Your task to perform on an android device: Show the shopping cart on ebay. Search for "dell xps" on ebay, select the first entry, and add it to the cart. Image 0: 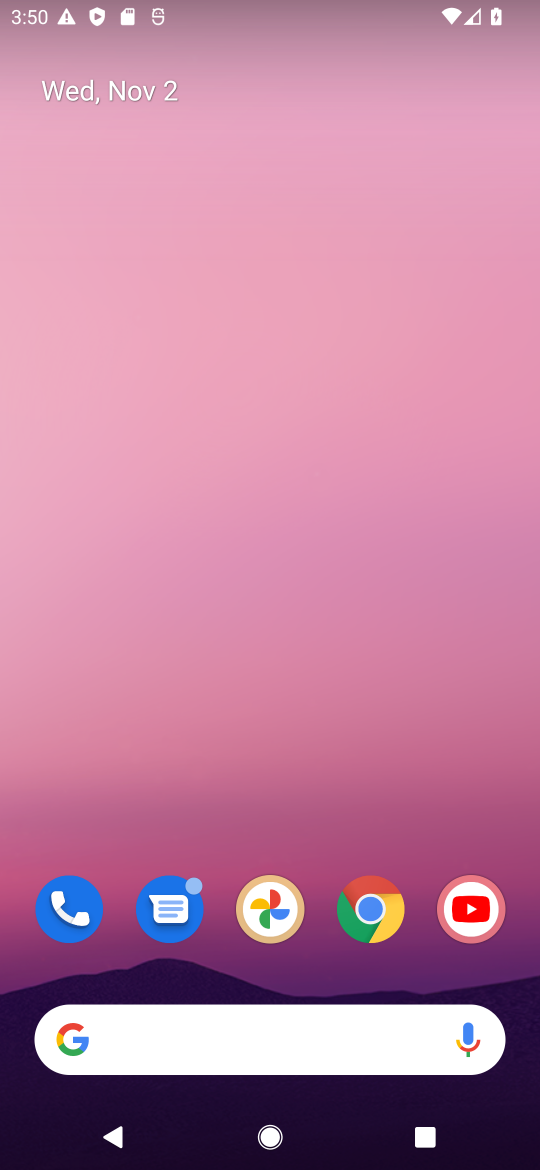
Step 0: press home button
Your task to perform on an android device: Show the shopping cart on ebay. Search for "dell xps" on ebay, select the first entry, and add it to the cart. Image 1: 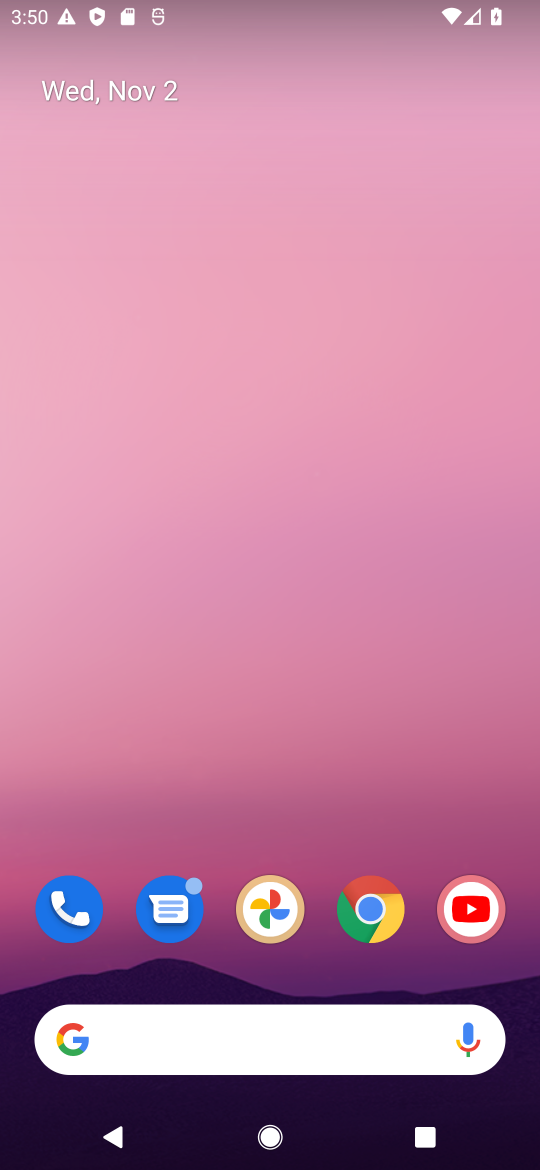
Step 1: click (373, 888)
Your task to perform on an android device: Show the shopping cart on ebay. Search for "dell xps" on ebay, select the first entry, and add it to the cart. Image 2: 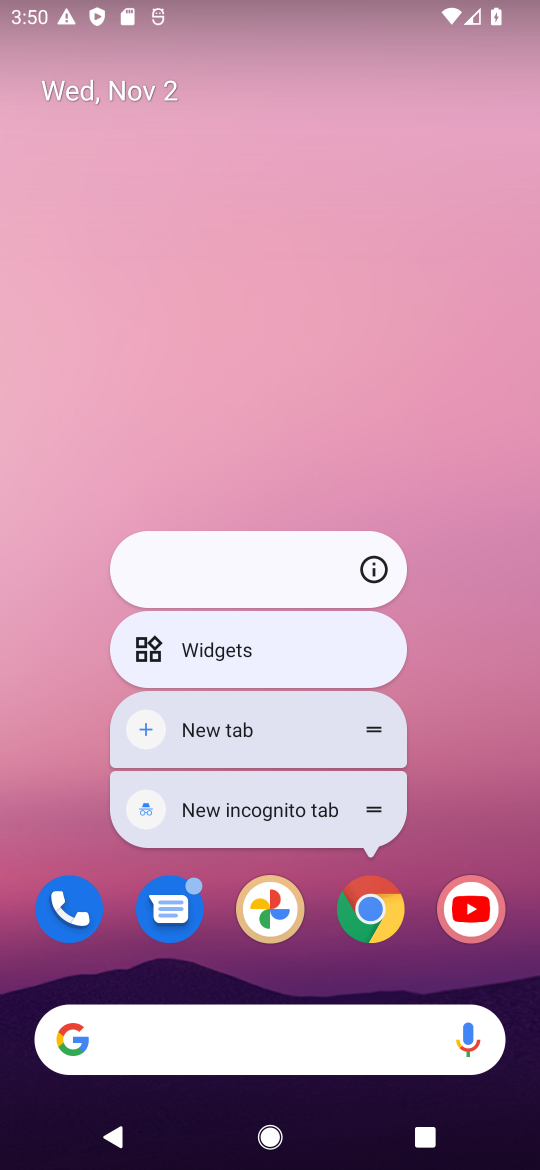
Step 2: click (366, 912)
Your task to perform on an android device: Show the shopping cart on ebay. Search for "dell xps" on ebay, select the first entry, and add it to the cart. Image 3: 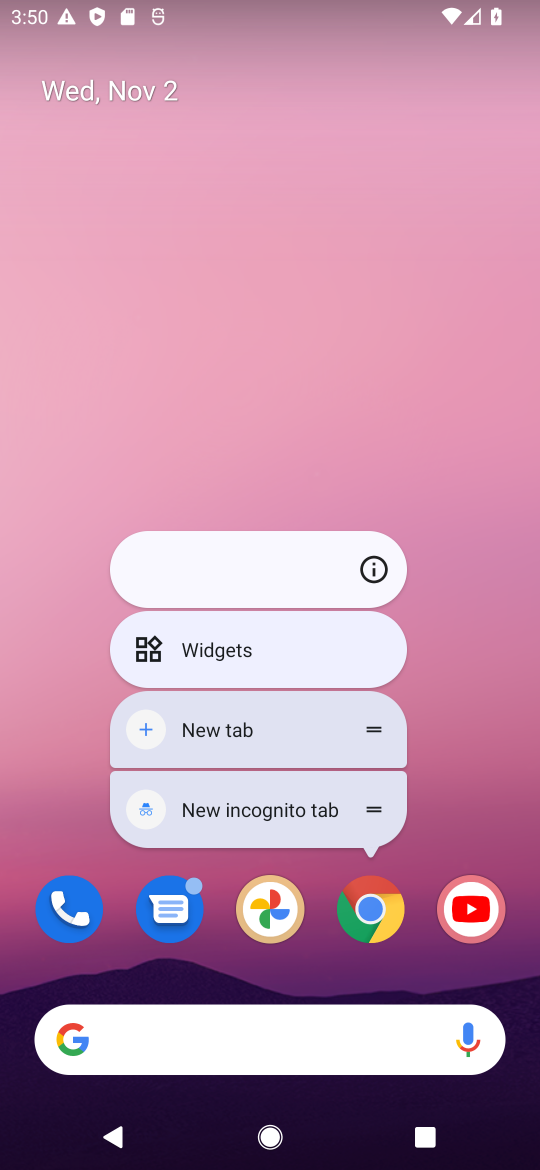
Step 3: click (379, 908)
Your task to perform on an android device: Show the shopping cart on ebay. Search for "dell xps" on ebay, select the first entry, and add it to the cart. Image 4: 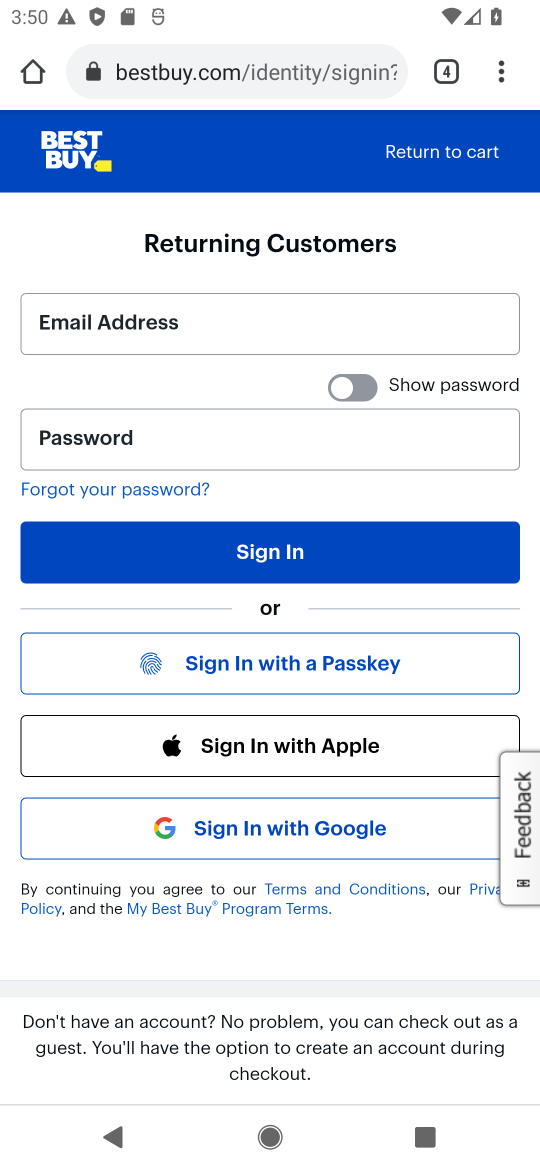
Step 4: click (198, 62)
Your task to perform on an android device: Show the shopping cart on ebay. Search for "dell xps" on ebay, select the first entry, and add it to the cart. Image 5: 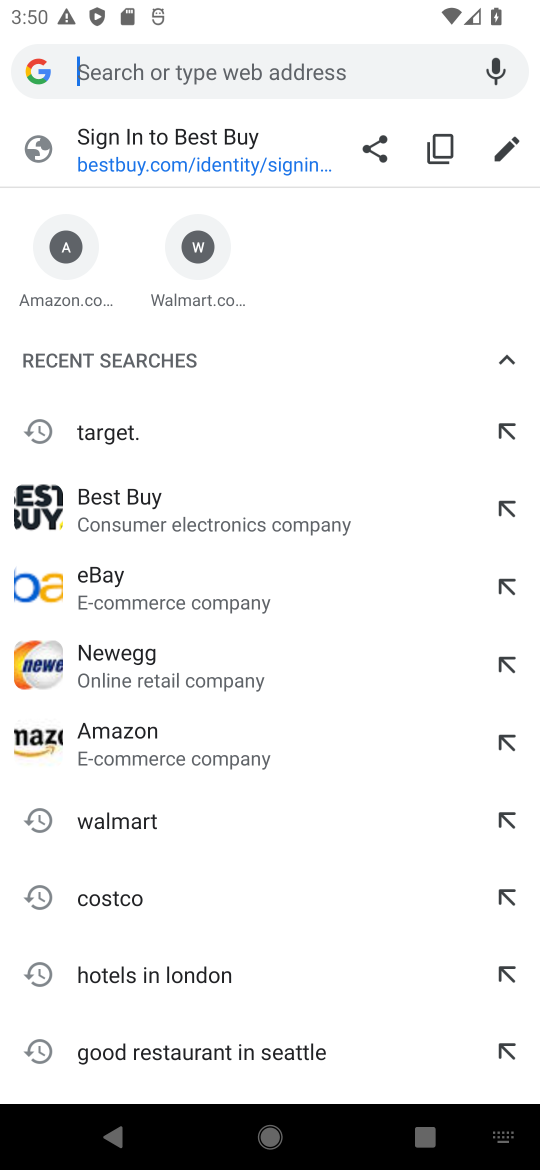
Step 5: click (103, 578)
Your task to perform on an android device: Show the shopping cart on ebay. Search for "dell xps" on ebay, select the first entry, and add it to the cart. Image 6: 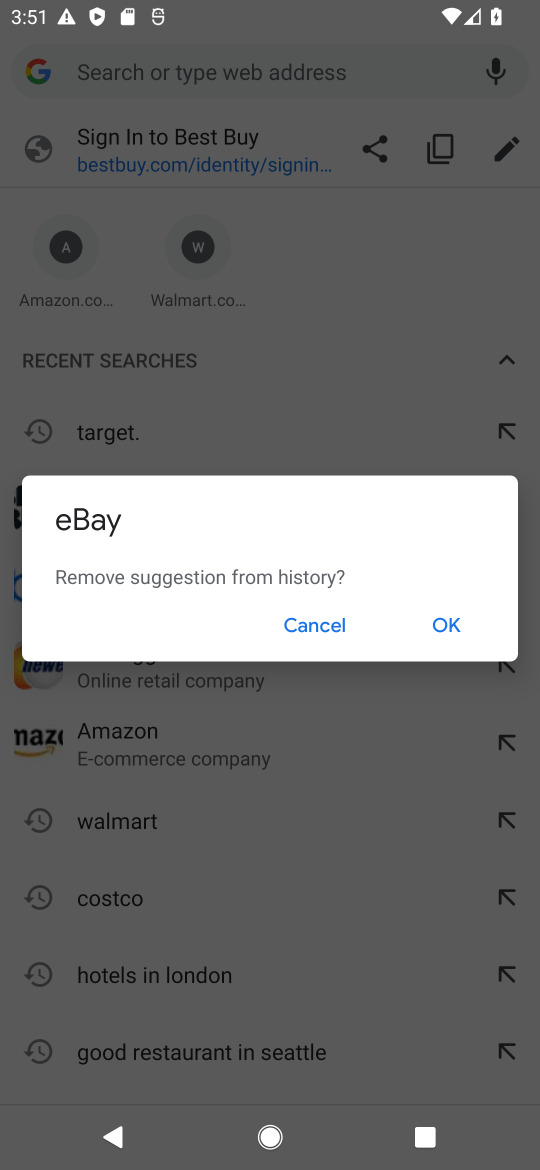
Step 6: click (336, 633)
Your task to perform on an android device: Show the shopping cart on ebay. Search for "dell xps" on ebay, select the first entry, and add it to the cart. Image 7: 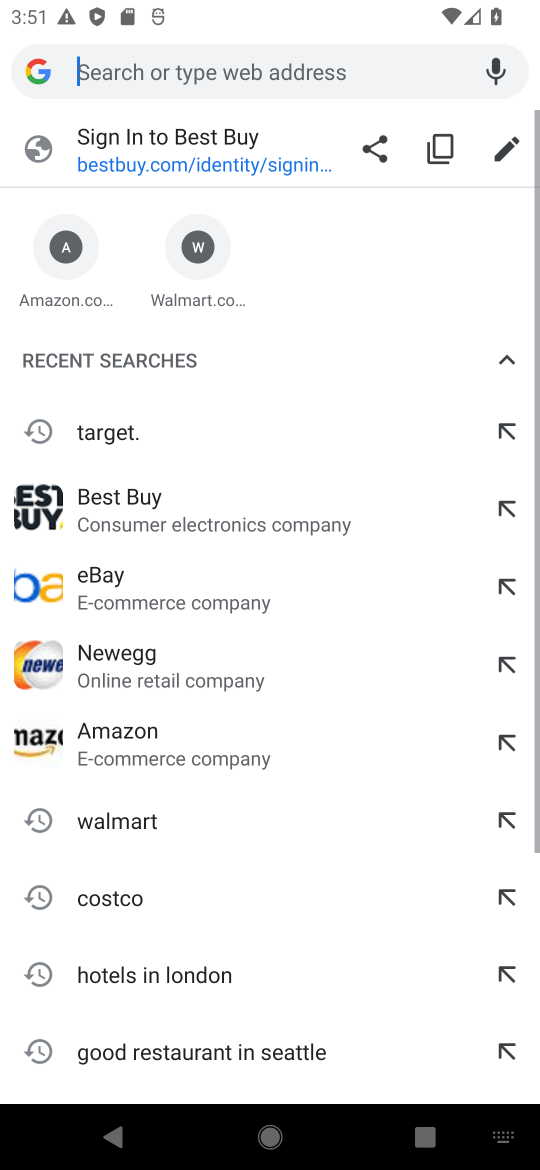
Step 7: click (80, 583)
Your task to perform on an android device: Show the shopping cart on ebay. Search for "dell xps" on ebay, select the first entry, and add it to the cart. Image 8: 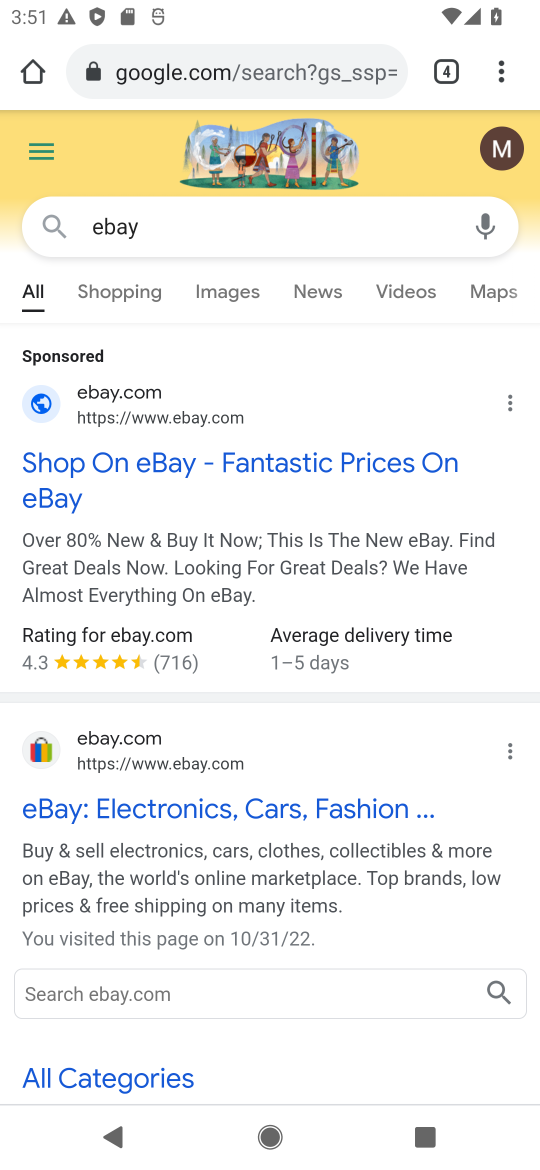
Step 8: click (226, 457)
Your task to perform on an android device: Show the shopping cart on ebay. Search for "dell xps" on ebay, select the first entry, and add it to the cart. Image 9: 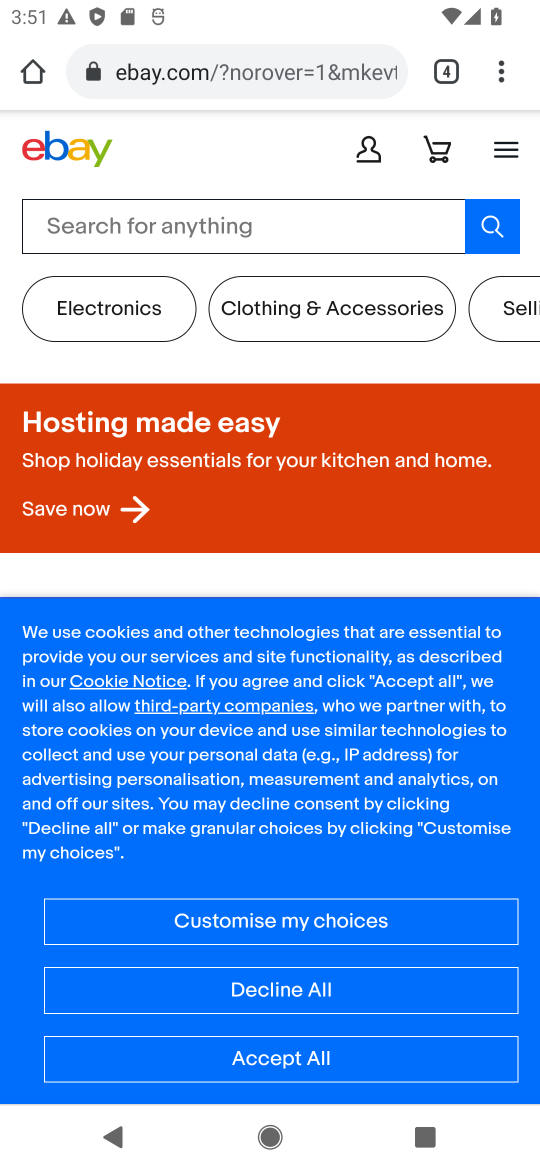
Step 9: click (269, 1063)
Your task to perform on an android device: Show the shopping cart on ebay. Search for "dell xps" on ebay, select the first entry, and add it to the cart. Image 10: 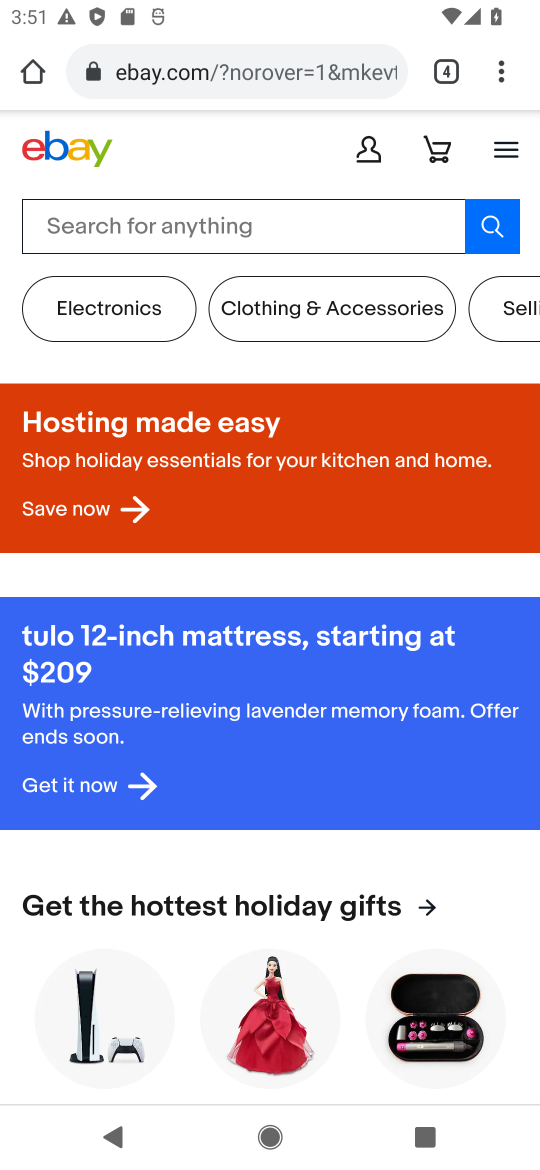
Step 10: click (141, 211)
Your task to perform on an android device: Show the shopping cart on ebay. Search for "dell xps" on ebay, select the first entry, and add it to the cart. Image 11: 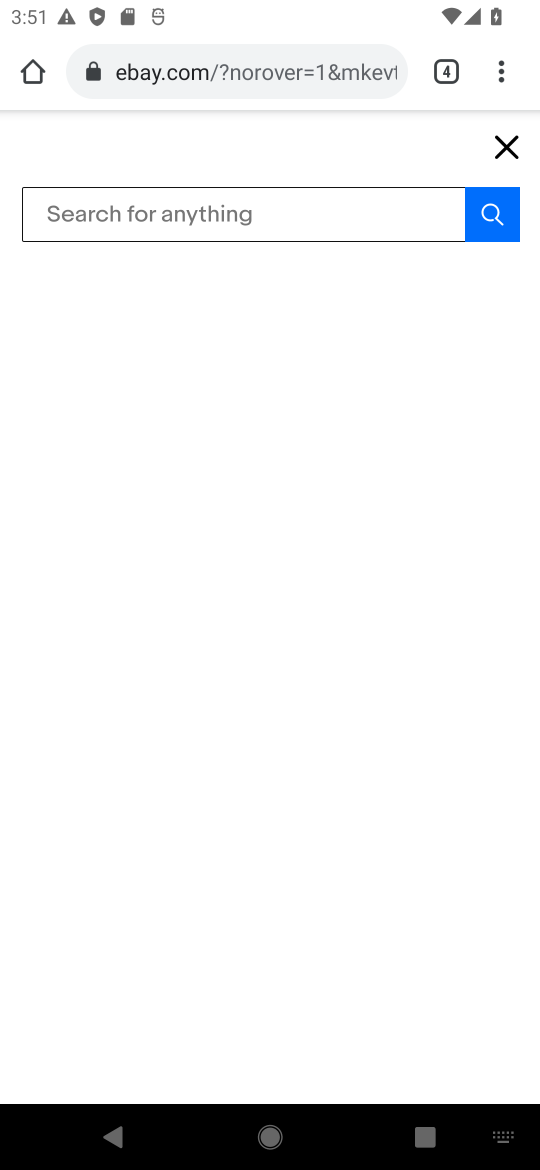
Step 11: type "dell xps"
Your task to perform on an android device: Show the shopping cart on ebay. Search for "dell xps" on ebay, select the first entry, and add it to the cart. Image 12: 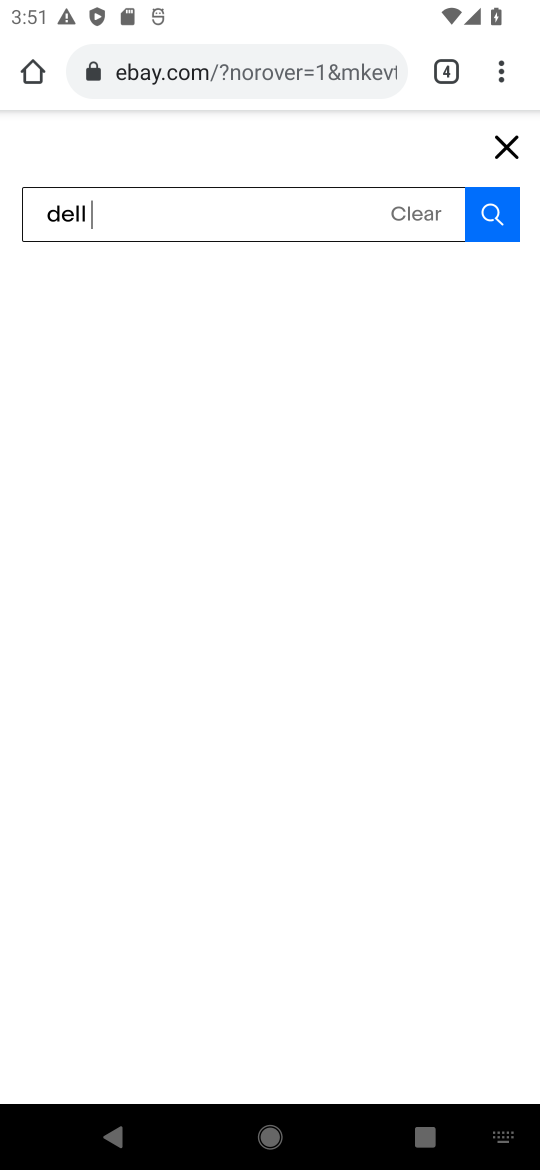
Step 12: press enter
Your task to perform on an android device: Show the shopping cart on ebay. Search for "dell xps" on ebay, select the first entry, and add it to the cart. Image 13: 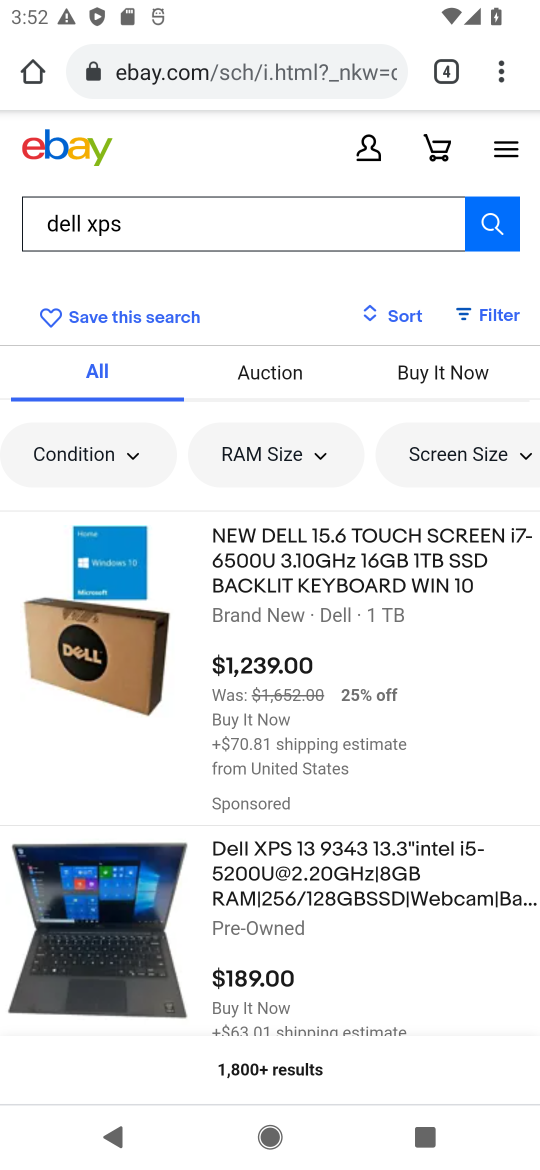
Step 13: click (278, 878)
Your task to perform on an android device: Show the shopping cart on ebay. Search for "dell xps" on ebay, select the first entry, and add it to the cart. Image 14: 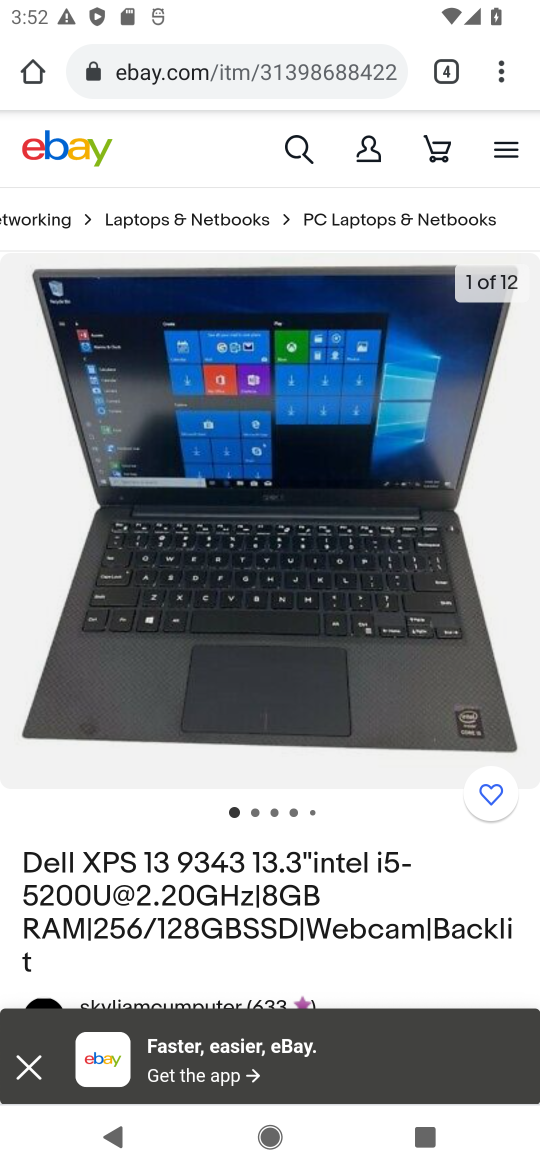
Step 14: drag from (315, 927) to (467, 264)
Your task to perform on an android device: Show the shopping cart on ebay. Search for "dell xps" on ebay, select the first entry, and add it to the cart. Image 15: 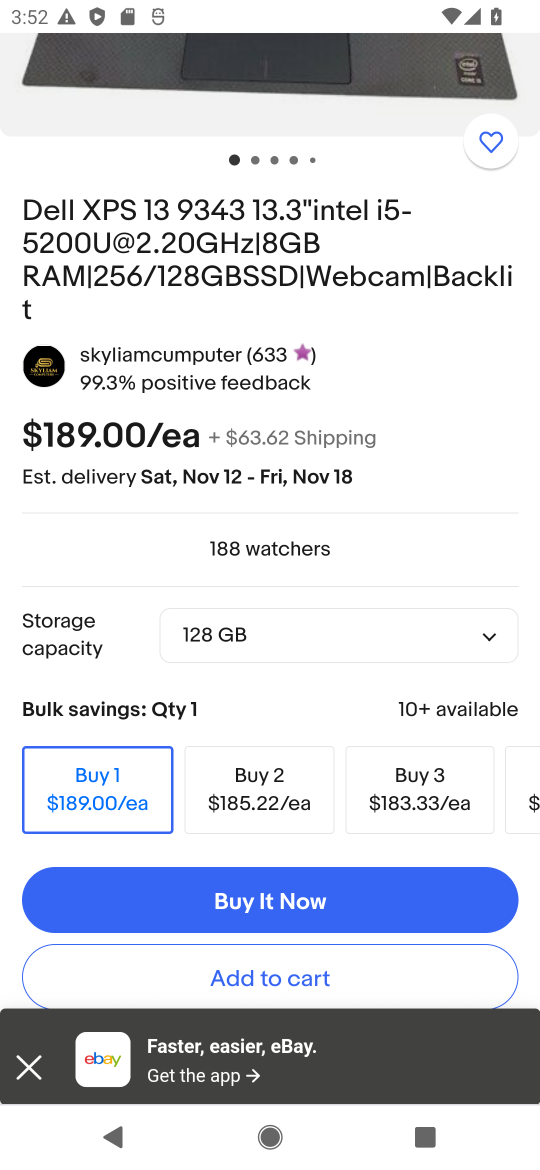
Step 15: click (283, 982)
Your task to perform on an android device: Show the shopping cart on ebay. Search for "dell xps" on ebay, select the first entry, and add it to the cart. Image 16: 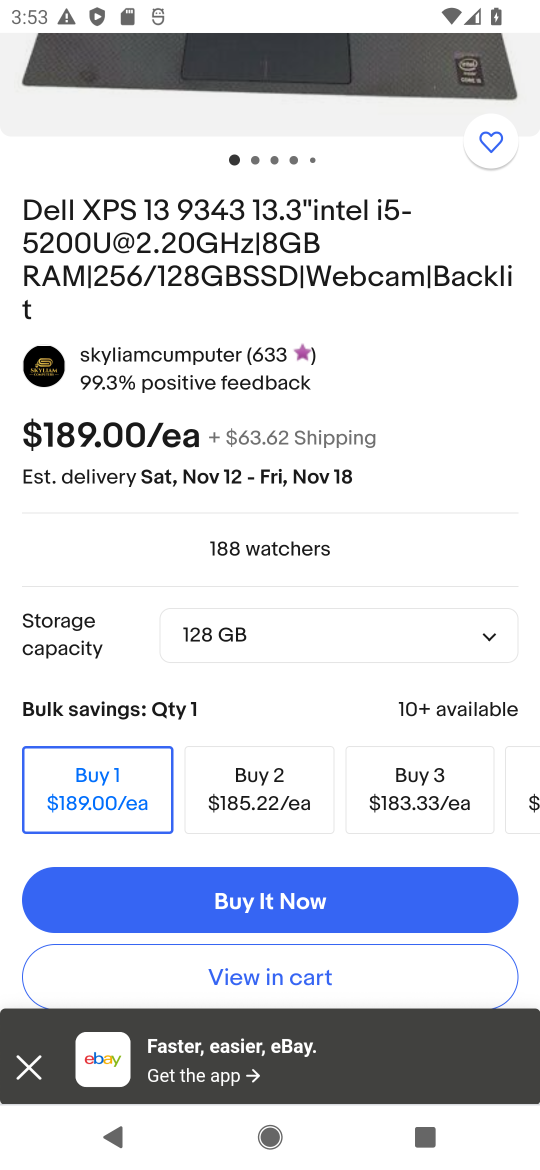
Step 16: task complete